Your task to perform on an android device: toggle priority inbox in the gmail app Image 0: 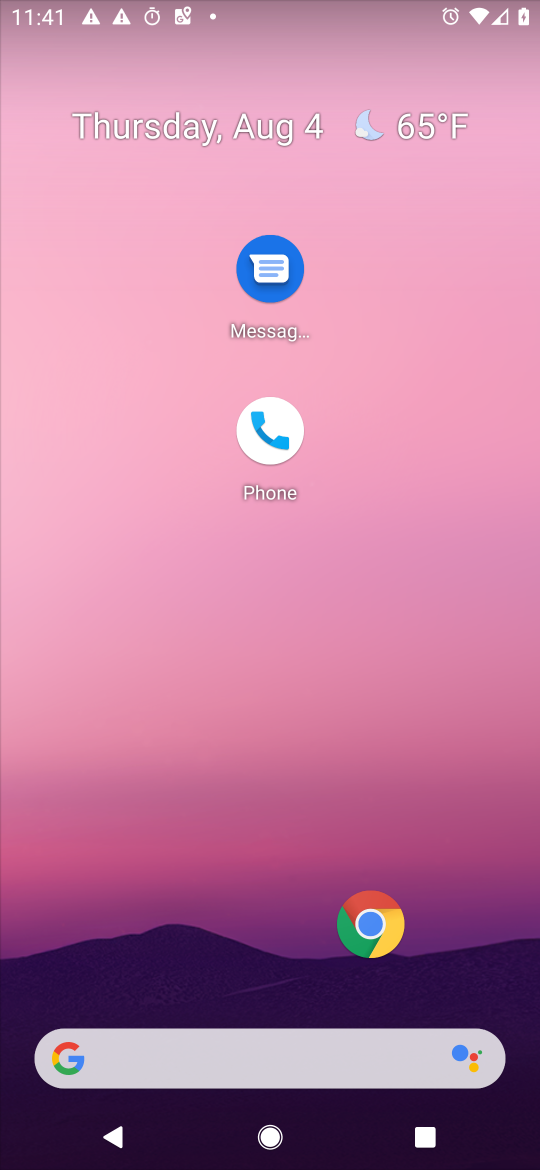
Step 0: drag from (314, 552) to (332, 294)
Your task to perform on an android device: toggle priority inbox in the gmail app Image 1: 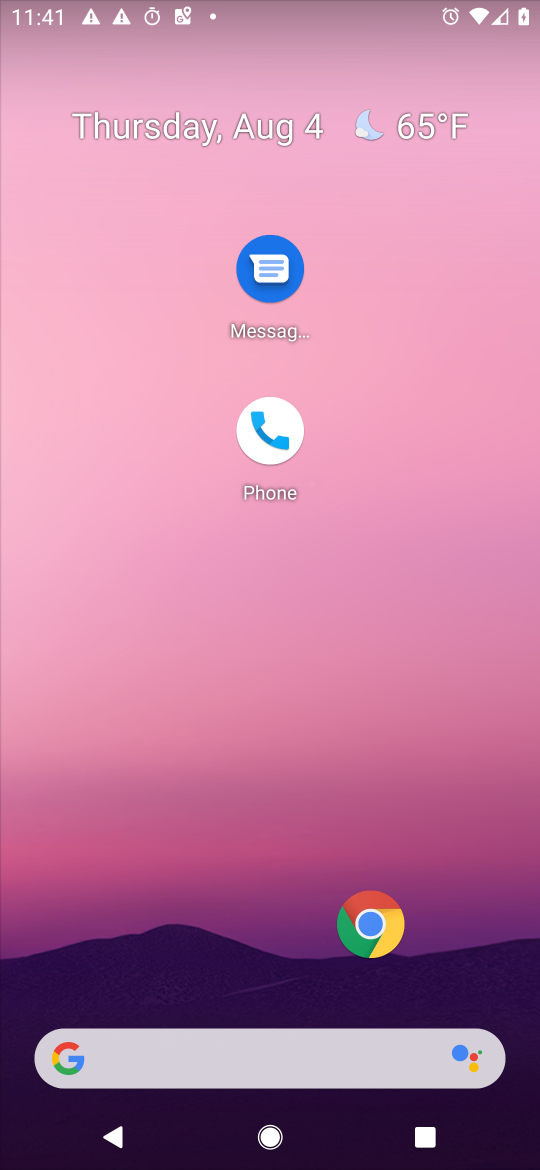
Step 1: drag from (308, 956) to (293, 322)
Your task to perform on an android device: toggle priority inbox in the gmail app Image 2: 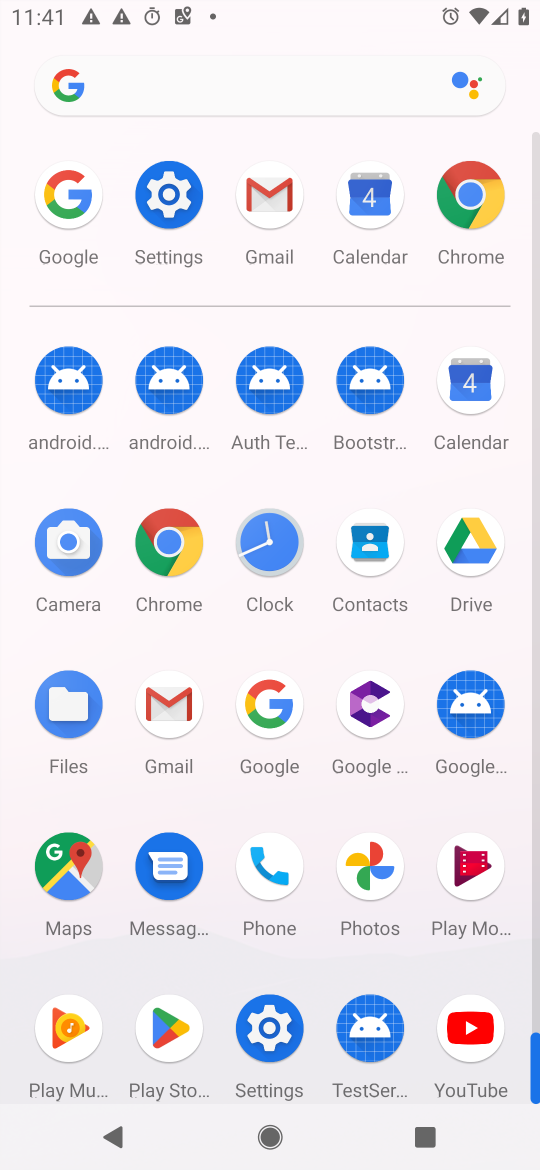
Step 2: click (159, 703)
Your task to perform on an android device: toggle priority inbox in the gmail app Image 3: 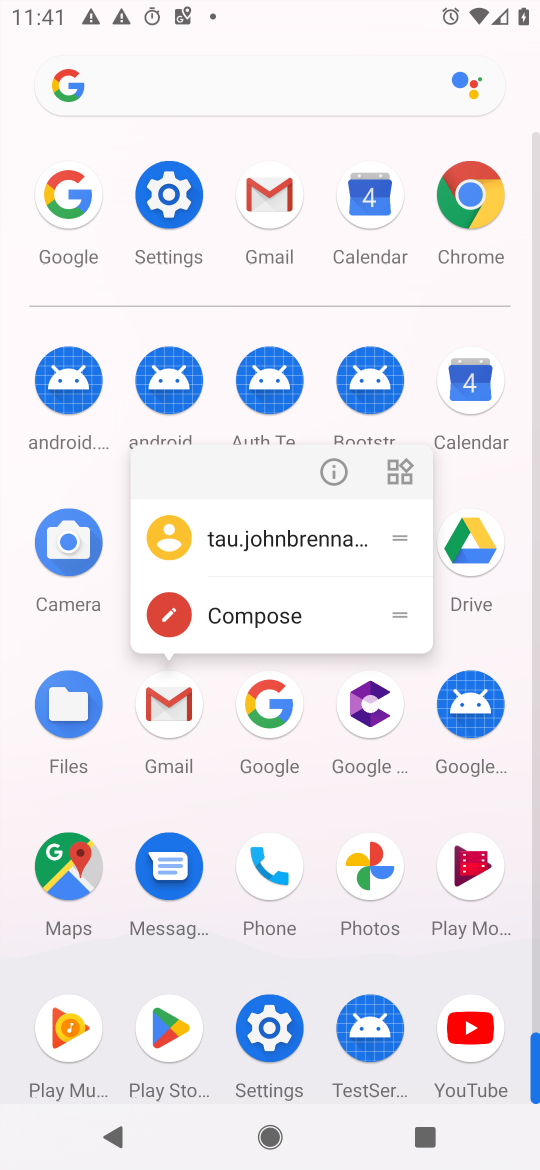
Step 3: click (341, 471)
Your task to perform on an android device: toggle priority inbox in the gmail app Image 4: 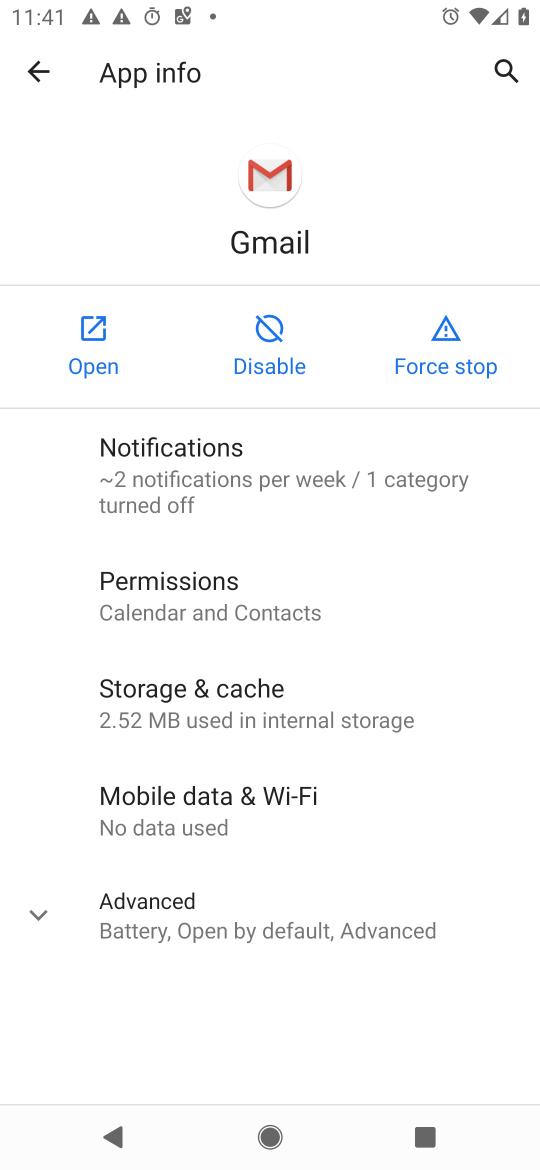
Step 4: click (120, 323)
Your task to perform on an android device: toggle priority inbox in the gmail app Image 5: 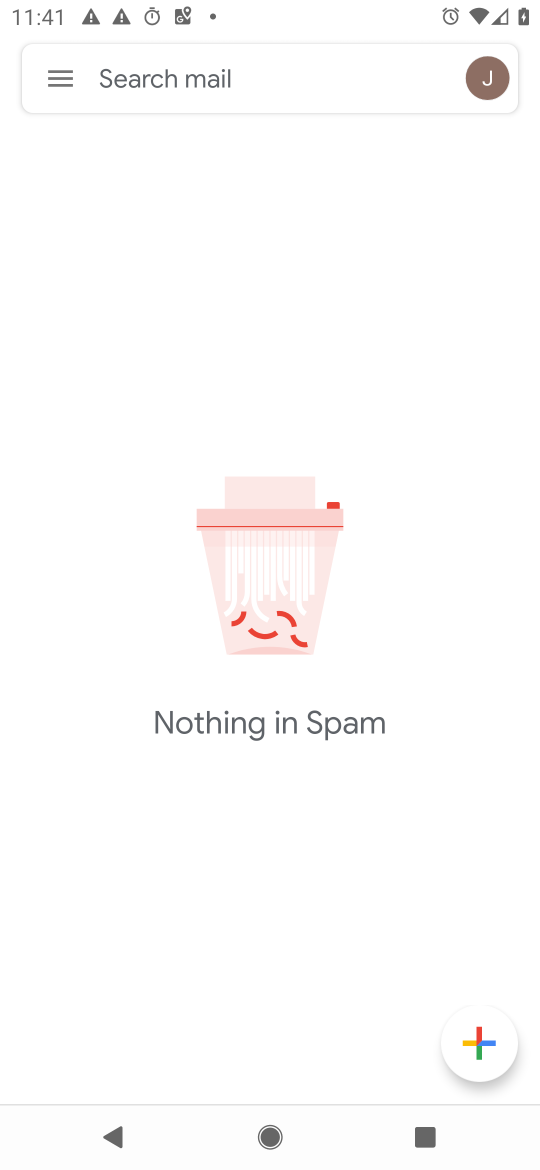
Step 5: click (63, 66)
Your task to perform on an android device: toggle priority inbox in the gmail app Image 6: 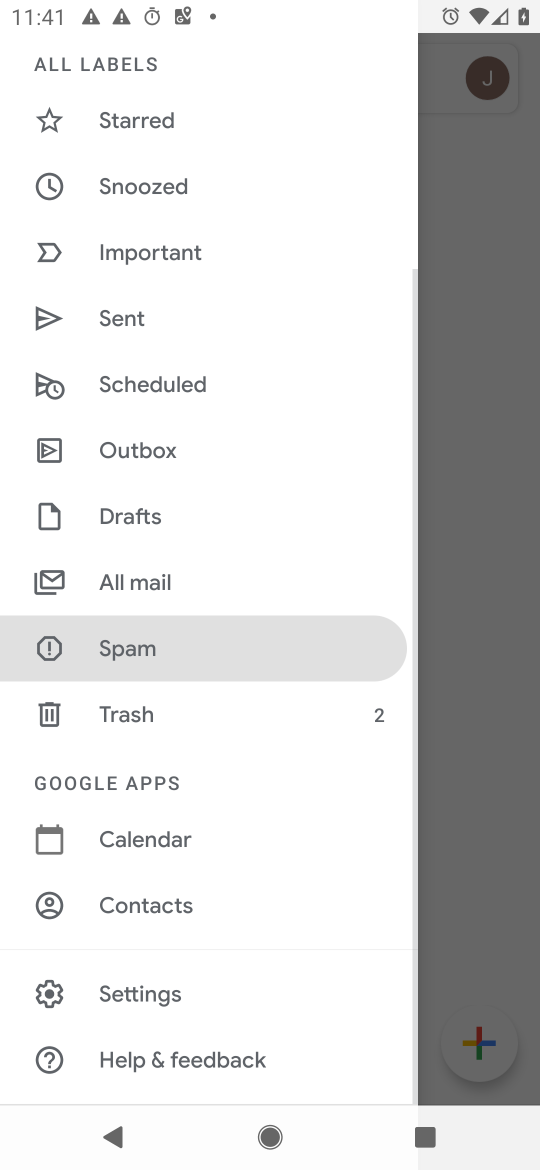
Step 6: drag from (236, 294) to (361, 1140)
Your task to perform on an android device: toggle priority inbox in the gmail app Image 7: 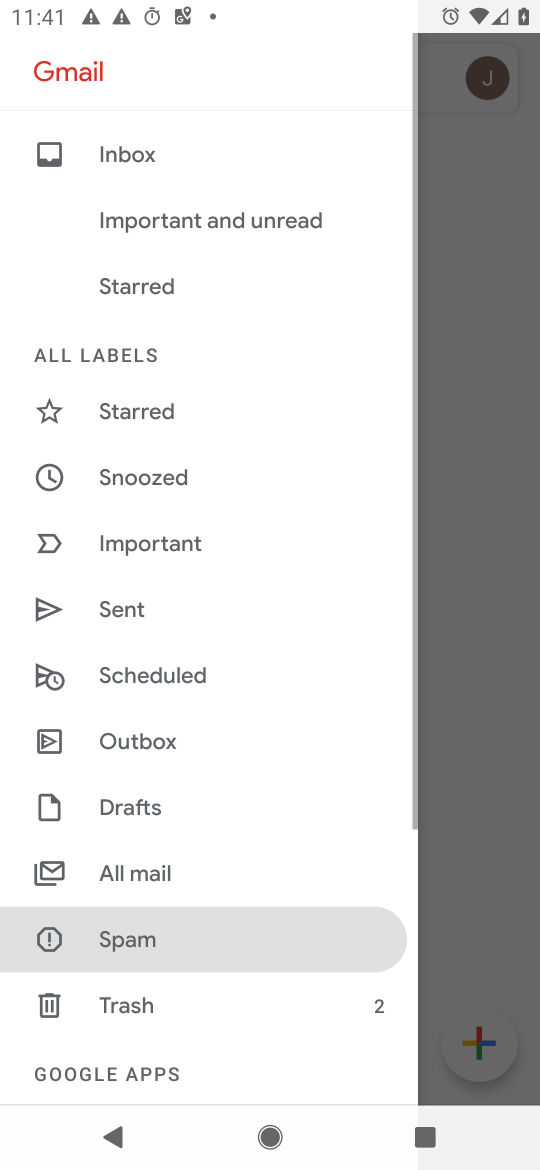
Step 7: click (126, 168)
Your task to perform on an android device: toggle priority inbox in the gmail app Image 8: 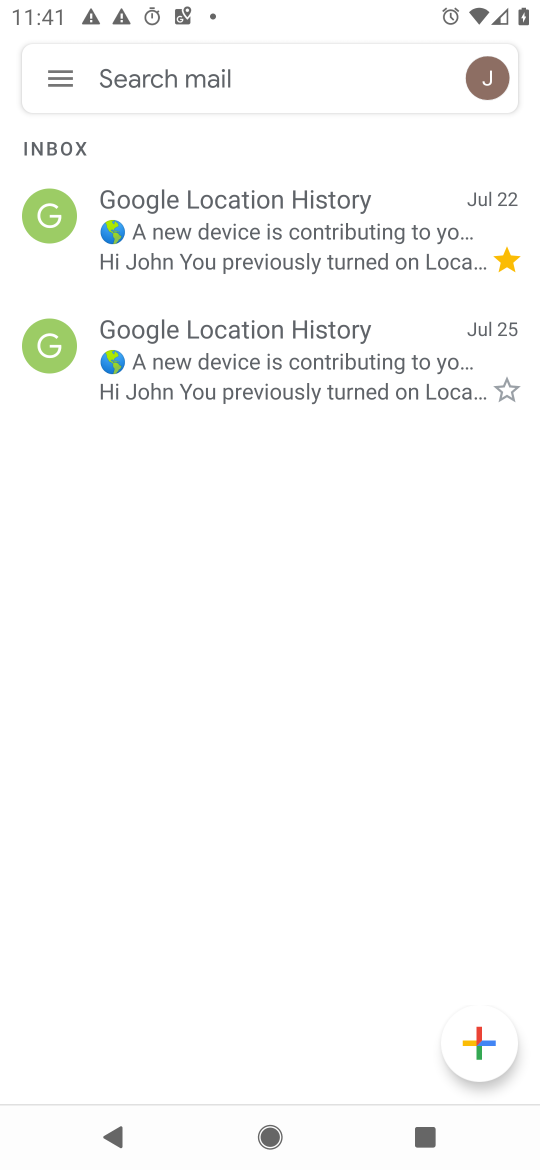
Step 8: click (54, 82)
Your task to perform on an android device: toggle priority inbox in the gmail app Image 9: 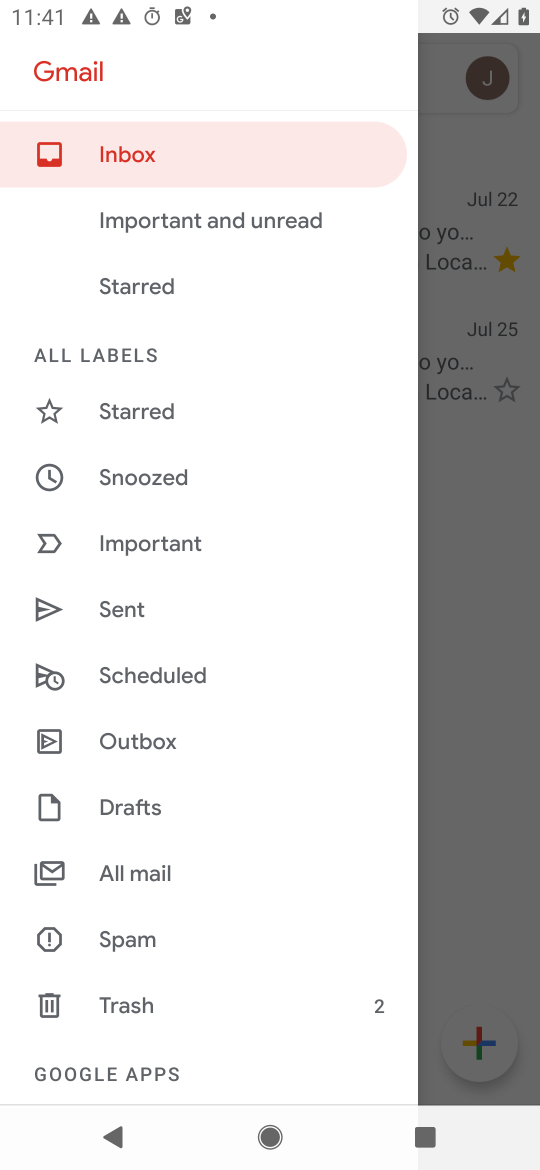
Step 9: drag from (187, 875) to (240, 225)
Your task to perform on an android device: toggle priority inbox in the gmail app Image 10: 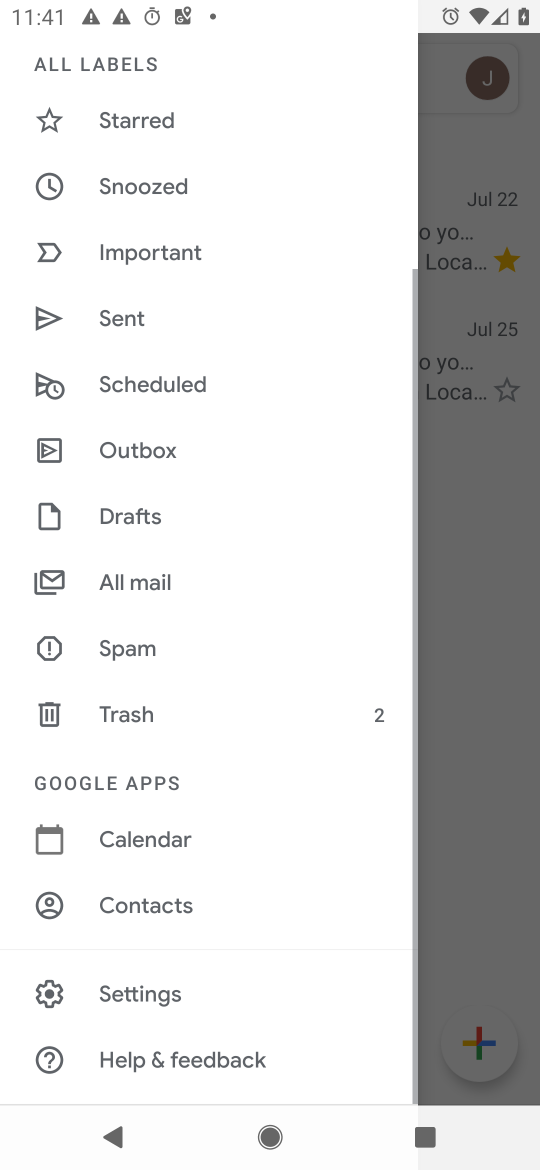
Step 10: drag from (187, 440) to (170, 141)
Your task to perform on an android device: toggle priority inbox in the gmail app Image 11: 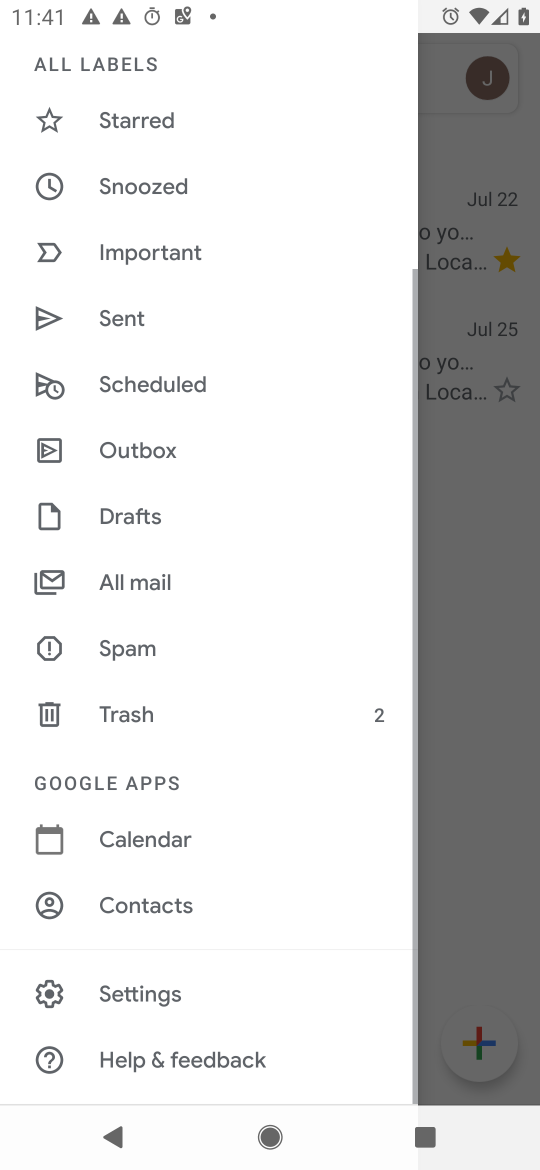
Step 11: click (105, 966)
Your task to perform on an android device: toggle priority inbox in the gmail app Image 12: 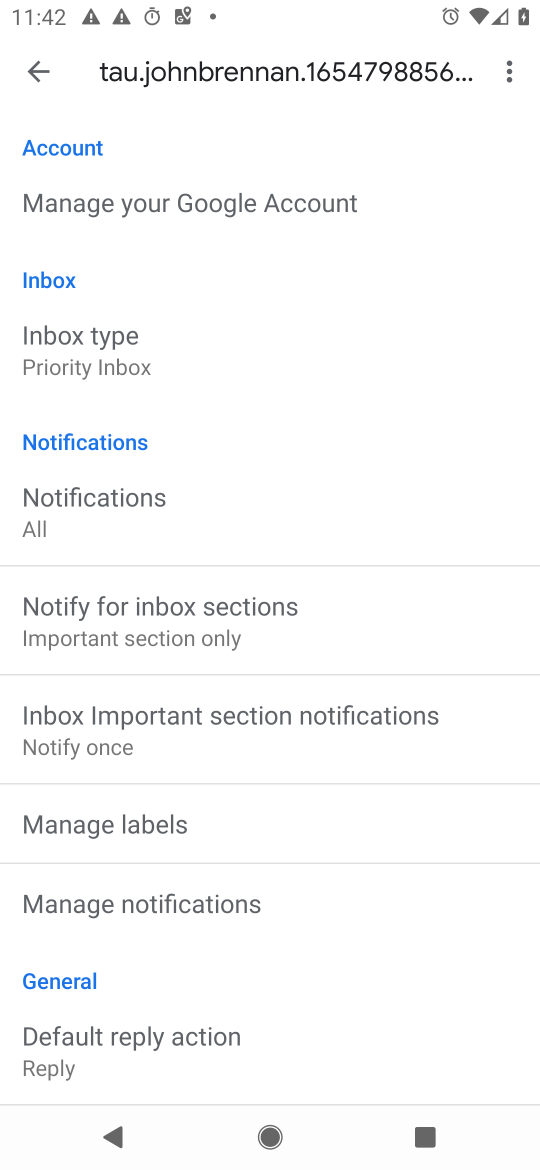
Step 12: click (140, 374)
Your task to perform on an android device: toggle priority inbox in the gmail app Image 13: 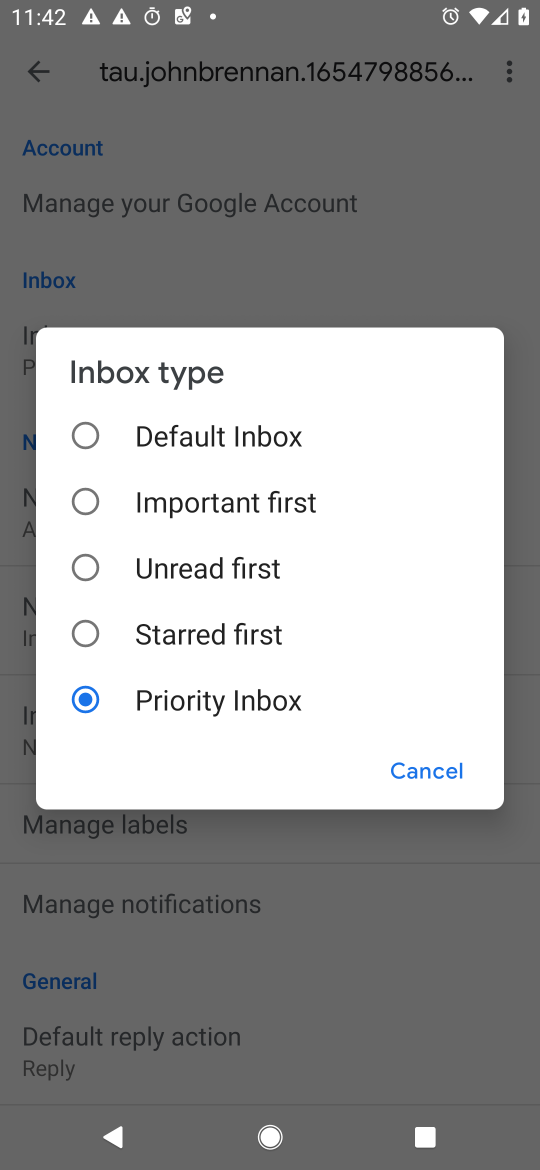
Step 13: click (121, 443)
Your task to perform on an android device: toggle priority inbox in the gmail app Image 14: 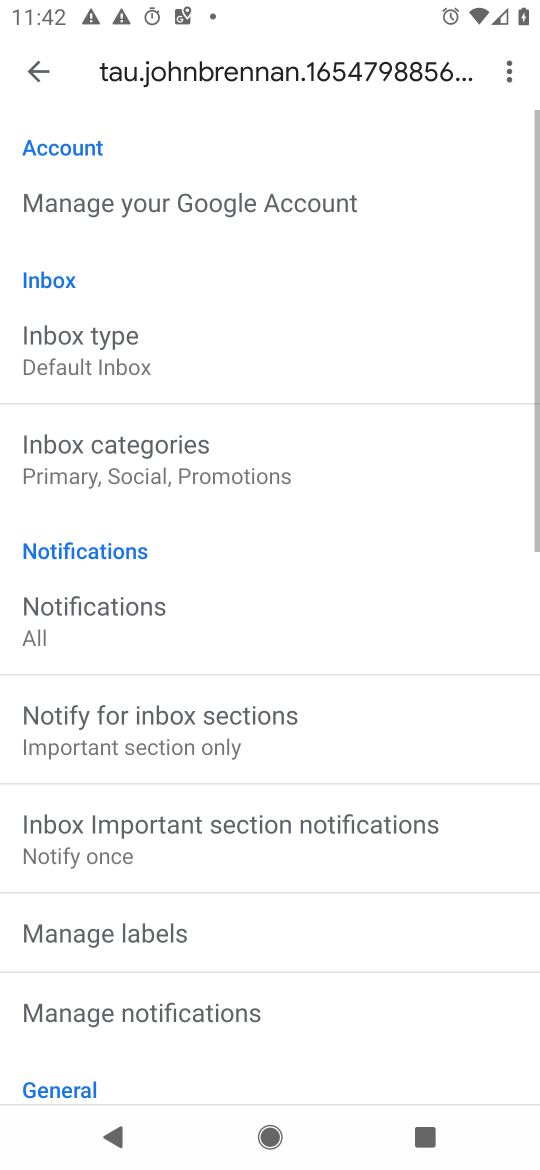
Step 14: task complete